Your task to perform on an android device: Open Amazon Image 0: 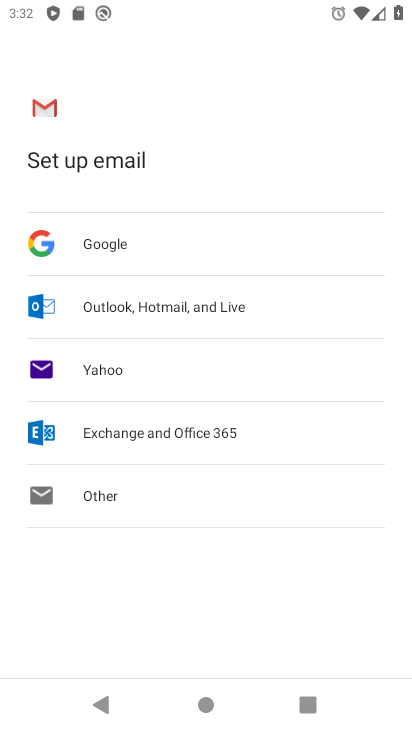
Step 0: press back button
Your task to perform on an android device: Open Amazon Image 1: 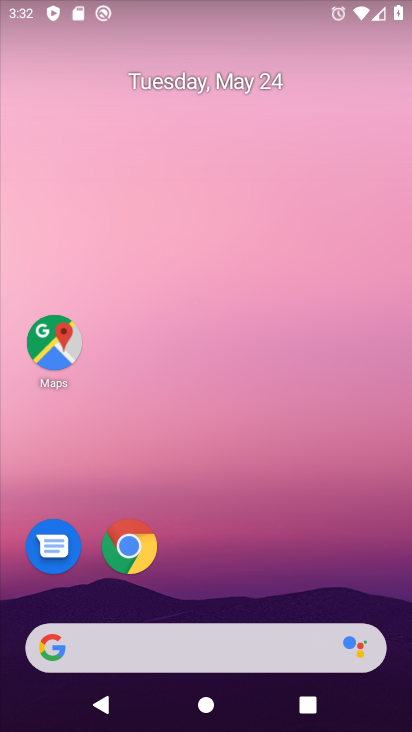
Step 1: drag from (267, 630) to (235, 141)
Your task to perform on an android device: Open Amazon Image 2: 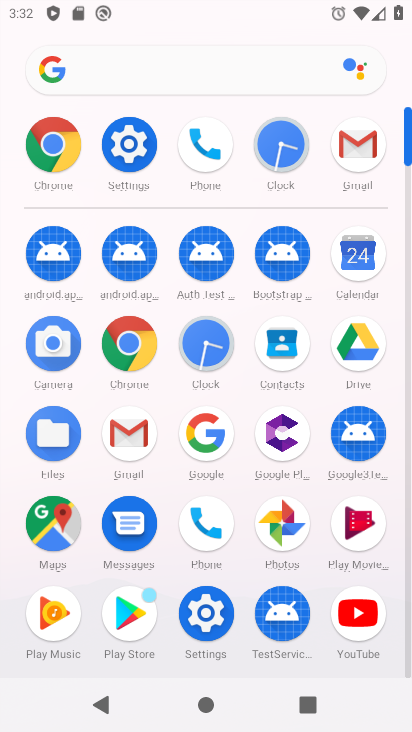
Step 2: click (57, 144)
Your task to perform on an android device: Open Amazon Image 3: 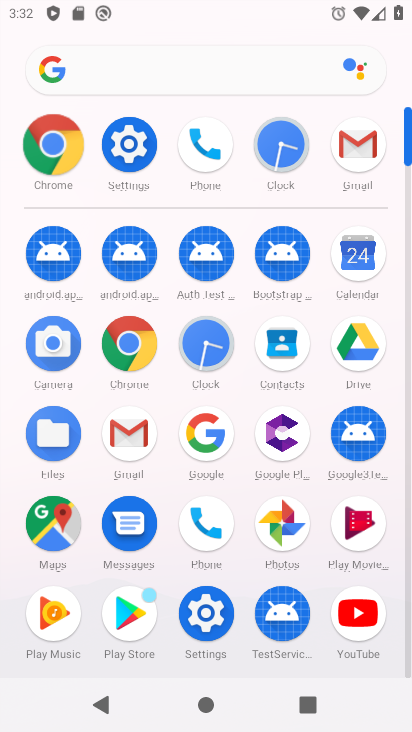
Step 3: click (53, 146)
Your task to perform on an android device: Open Amazon Image 4: 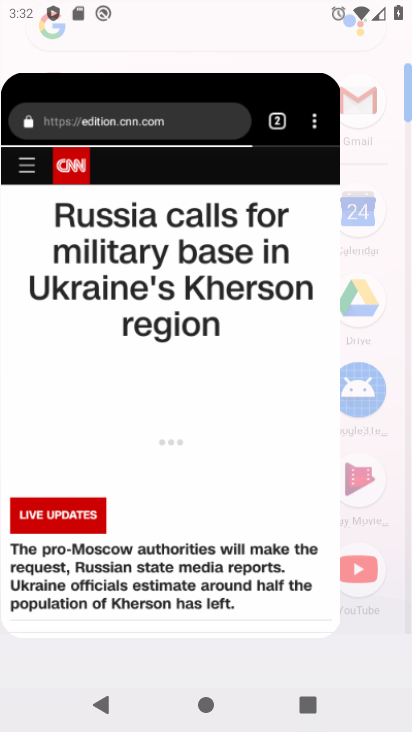
Step 4: click (53, 146)
Your task to perform on an android device: Open Amazon Image 5: 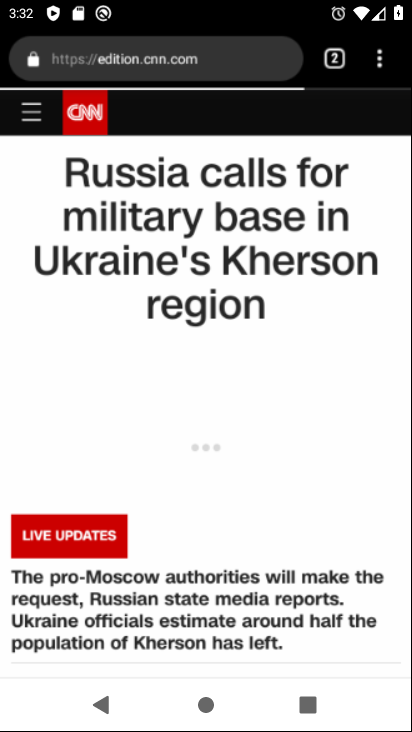
Step 5: click (51, 147)
Your task to perform on an android device: Open Amazon Image 6: 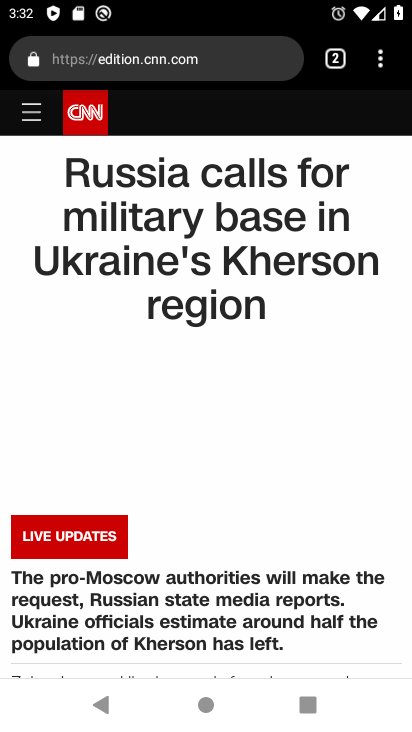
Step 6: drag from (382, 52) to (325, 363)
Your task to perform on an android device: Open Amazon Image 7: 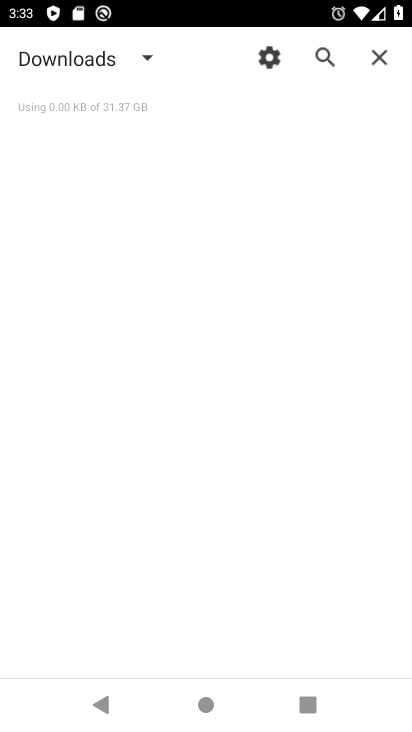
Step 7: click (146, 65)
Your task to perform on an android device: Open Amazon Image 8: 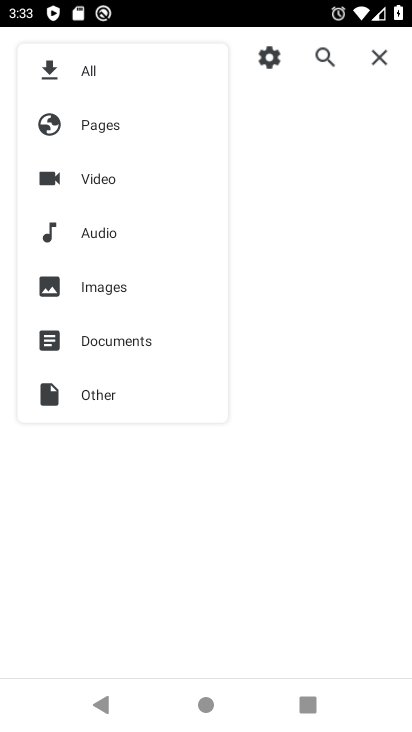
Step 8: click (96, 182)
Your task to perform on an android device: Open Amazon Image 9: 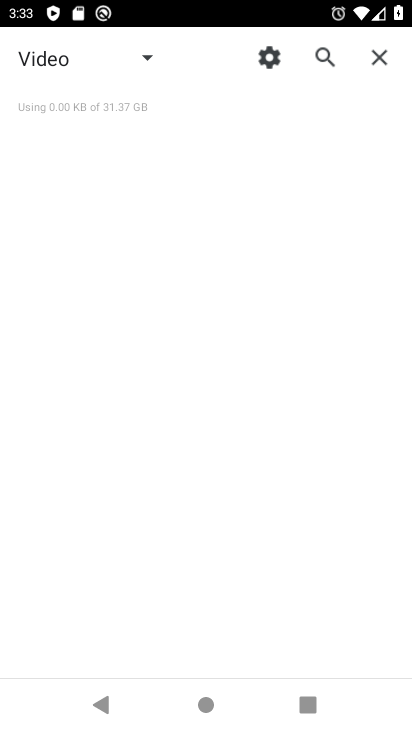
Step 9: click (146, 63)
Your task to perform on an android device: Open Amazon Image 10: 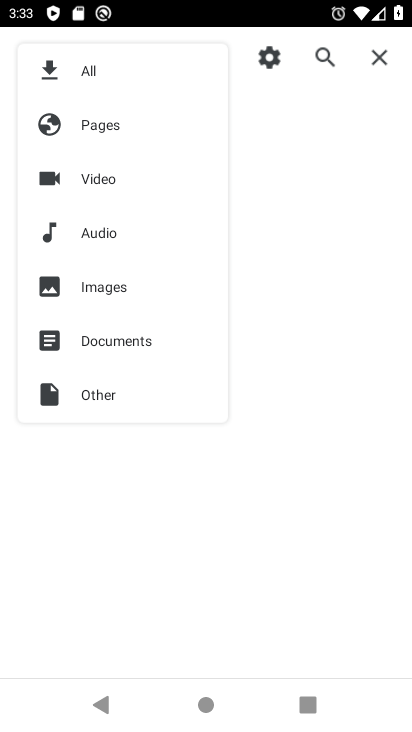
Step 10: click (97, 176)
Your task to perform on an android device: Open Amazon Image 11: 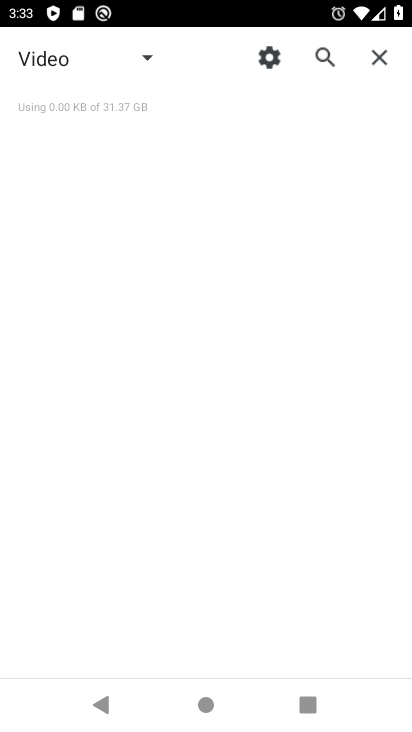
Step 11: click (139, 52)
Your task to perform on an android device: Open Amazon Image 12: 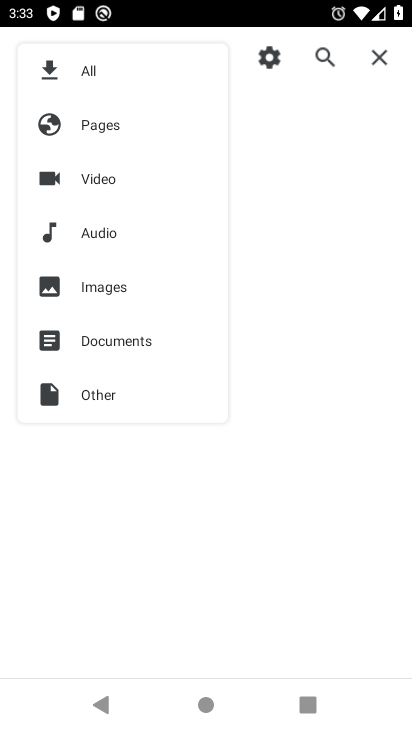
Step 12: task complete